Your task to perform on an android device: Go to wifi settings Image 0: 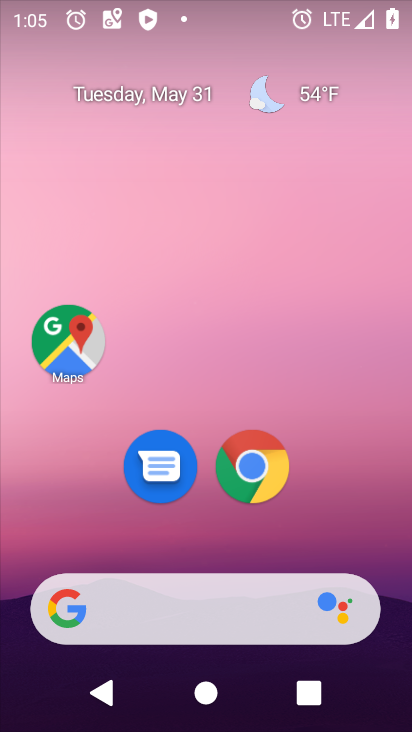
Step 0: drag from (227, 627) to (129, 0)
Your task to perform on an android device: Go to wifi settings Image 1: 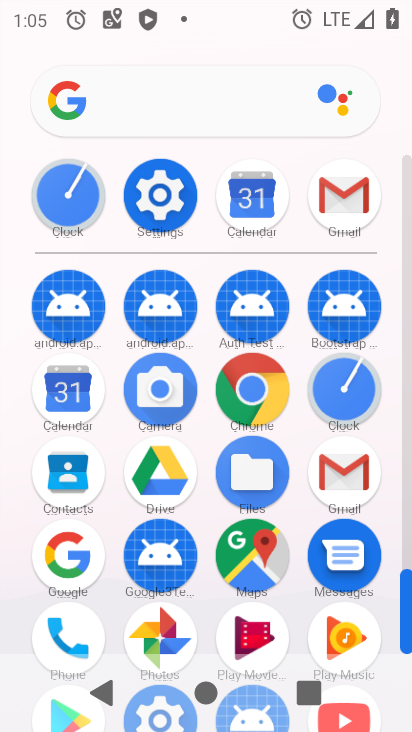
Step 1: click (167, 200)
Your task to perform on an android device: Go to wifi settings Image 2: 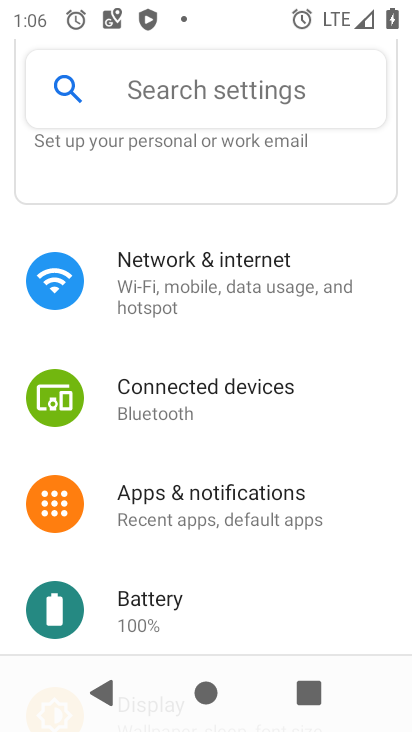
Step 2: click (202, 287)
Your task to perform on an android device: Go to wifi settings Image 3: 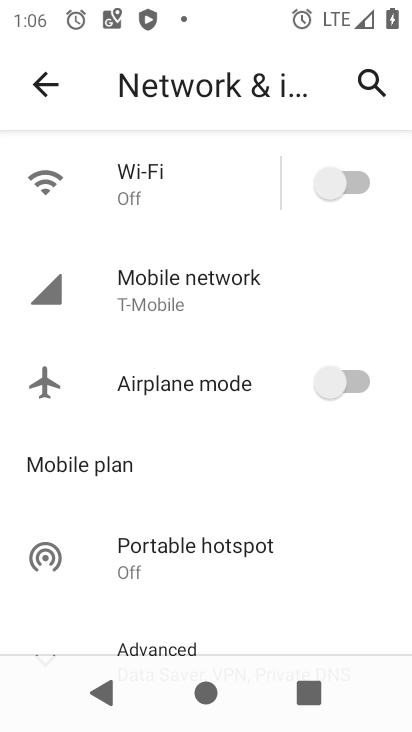
Step 3: click (163, 198)
Your task to perform on an android device: Go to wifi settings Image 4: 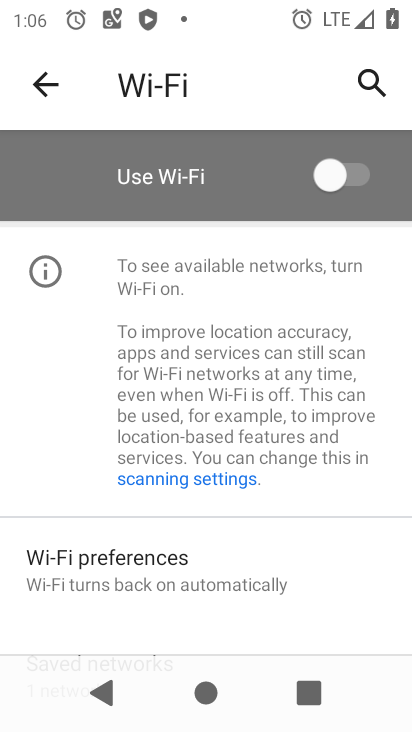
Step 4: task complete